Your task to perform on an android device: Open accessibility settings Image 0: 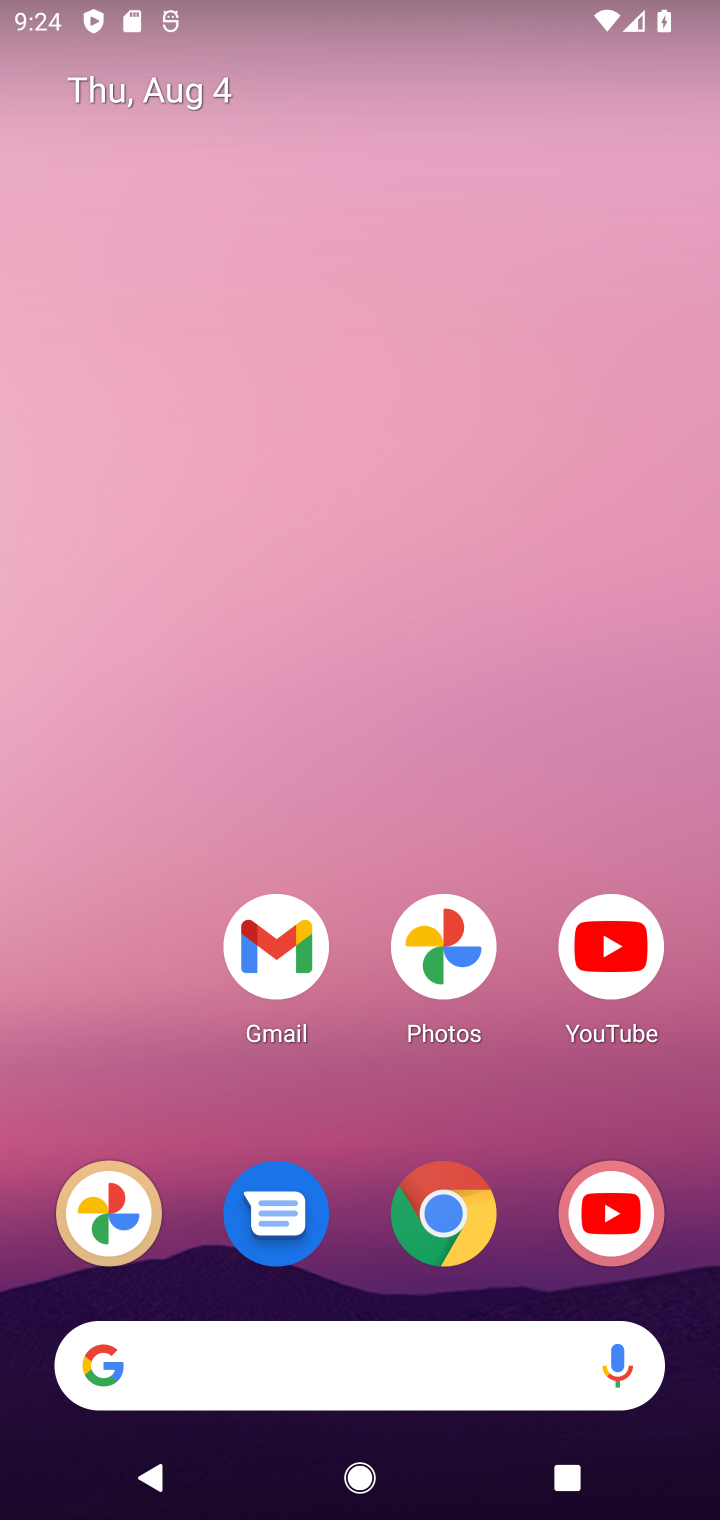
Step 0: press home button
Your task to perform on an android device: Open accessibility settings Image 1: 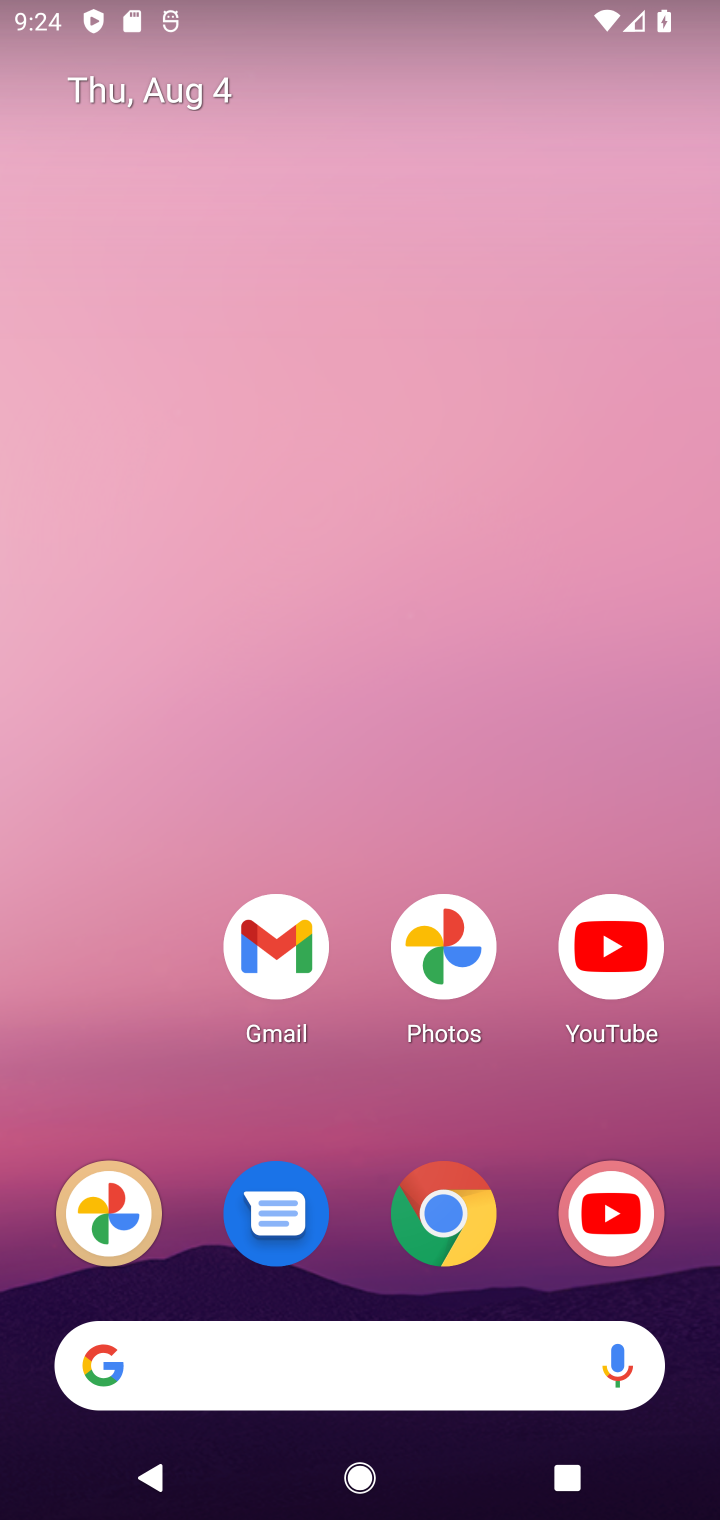
Step 1: drag from (344, 1099) to (378, 63)
Your task to perform on an android device: Open accessibility settings Image 2: 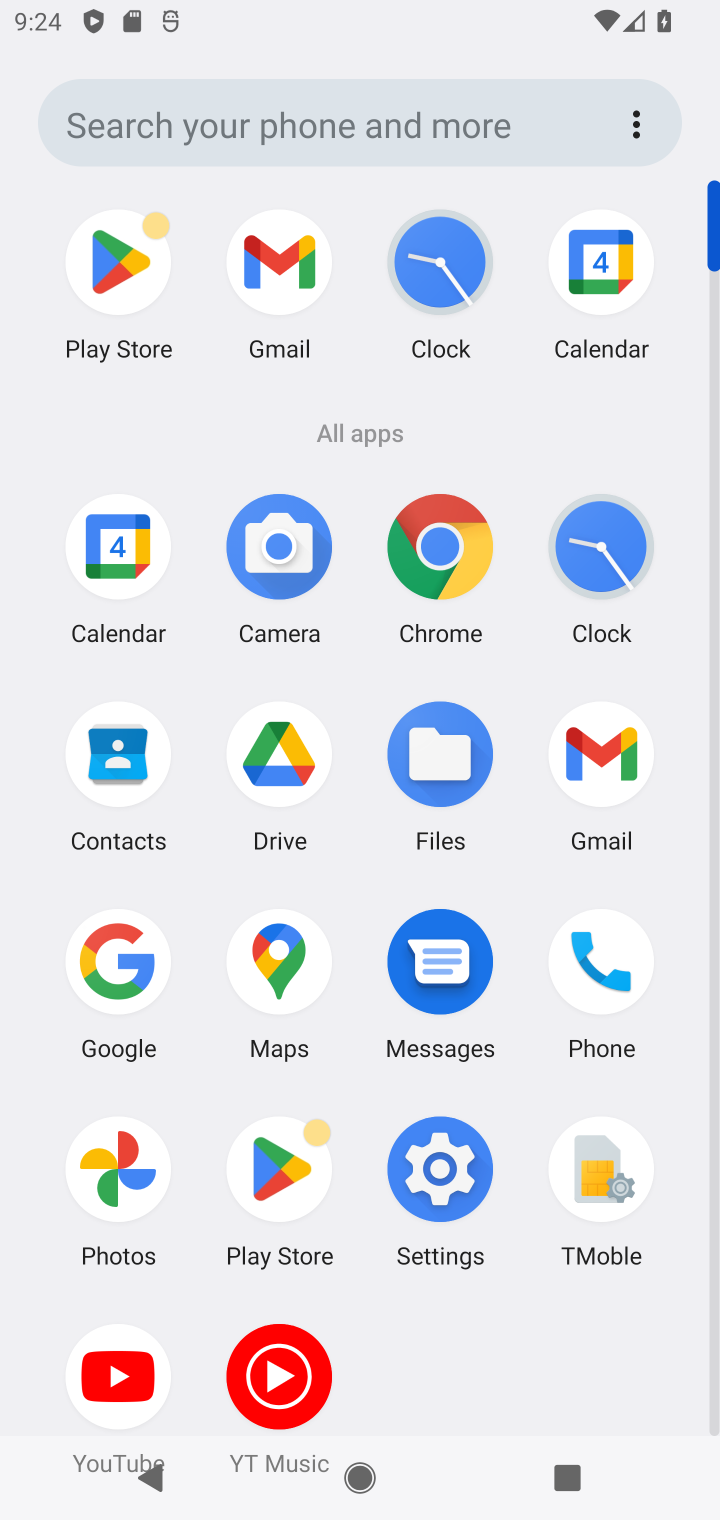
Step 2: click (436, 1161)
Your task to perform on an android device: Open accessibility settings Image 3: 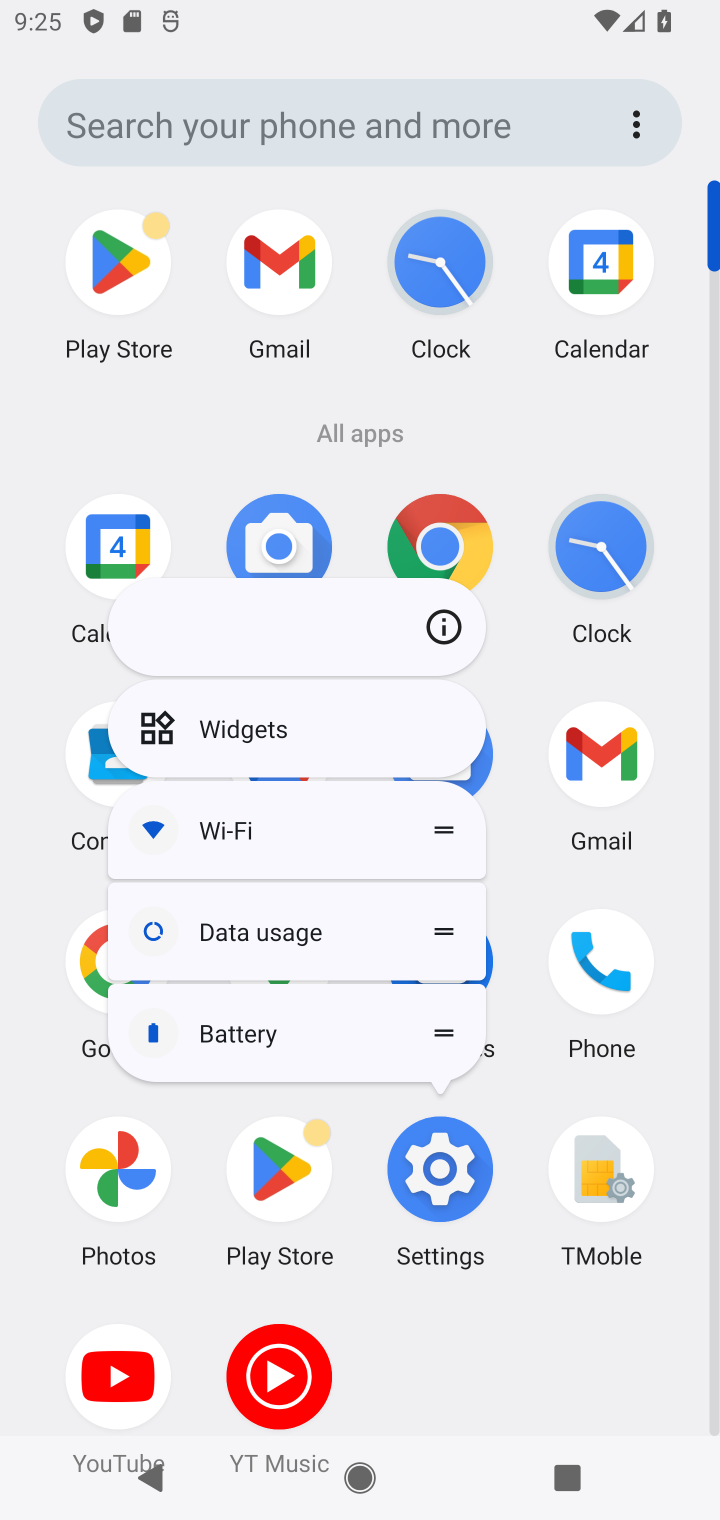
Step 3: click (448, 1166)
Your task to perform on an android device: Open accessibility settings Image 4: 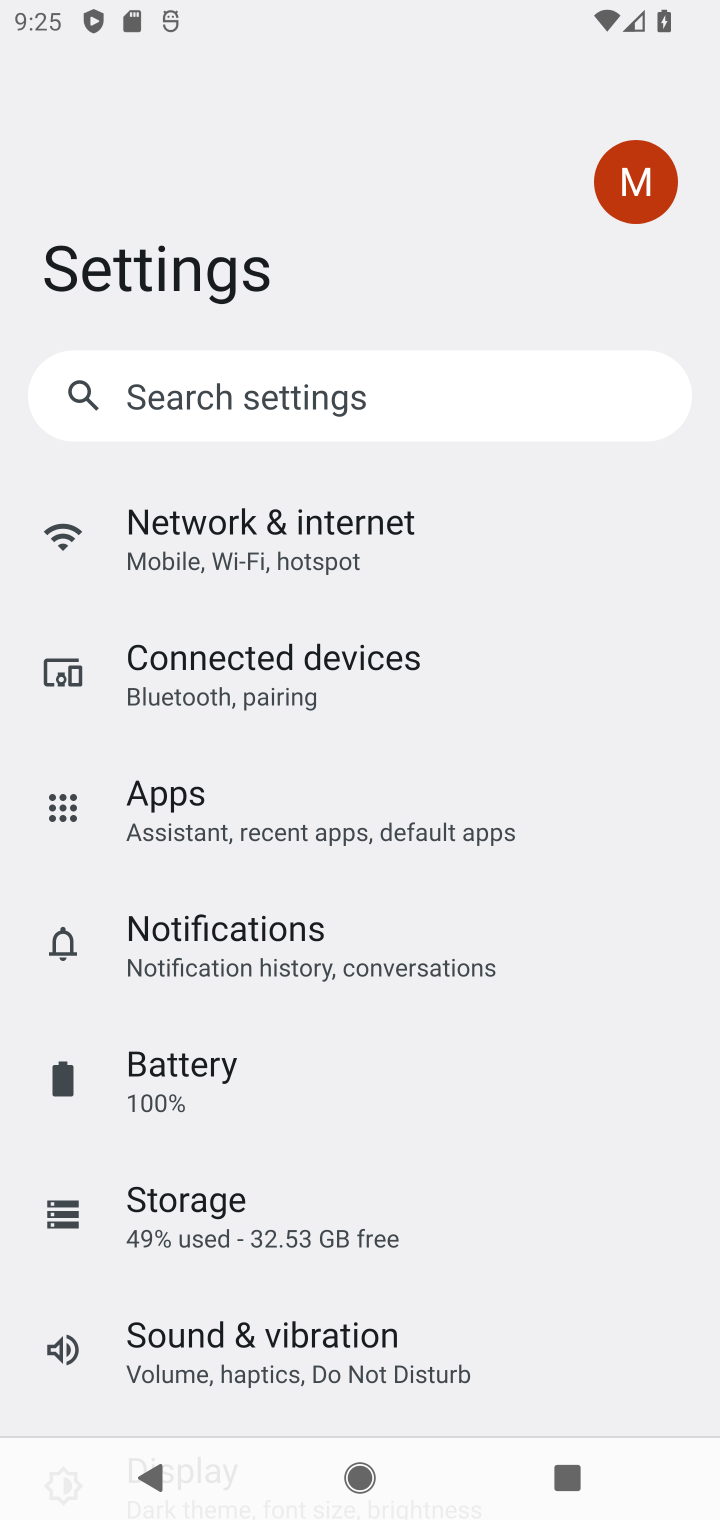
Step 4: drag from (321, 1292) to (431, 319)
Your task to perform on an android device: Open accessibility settings Image 5: 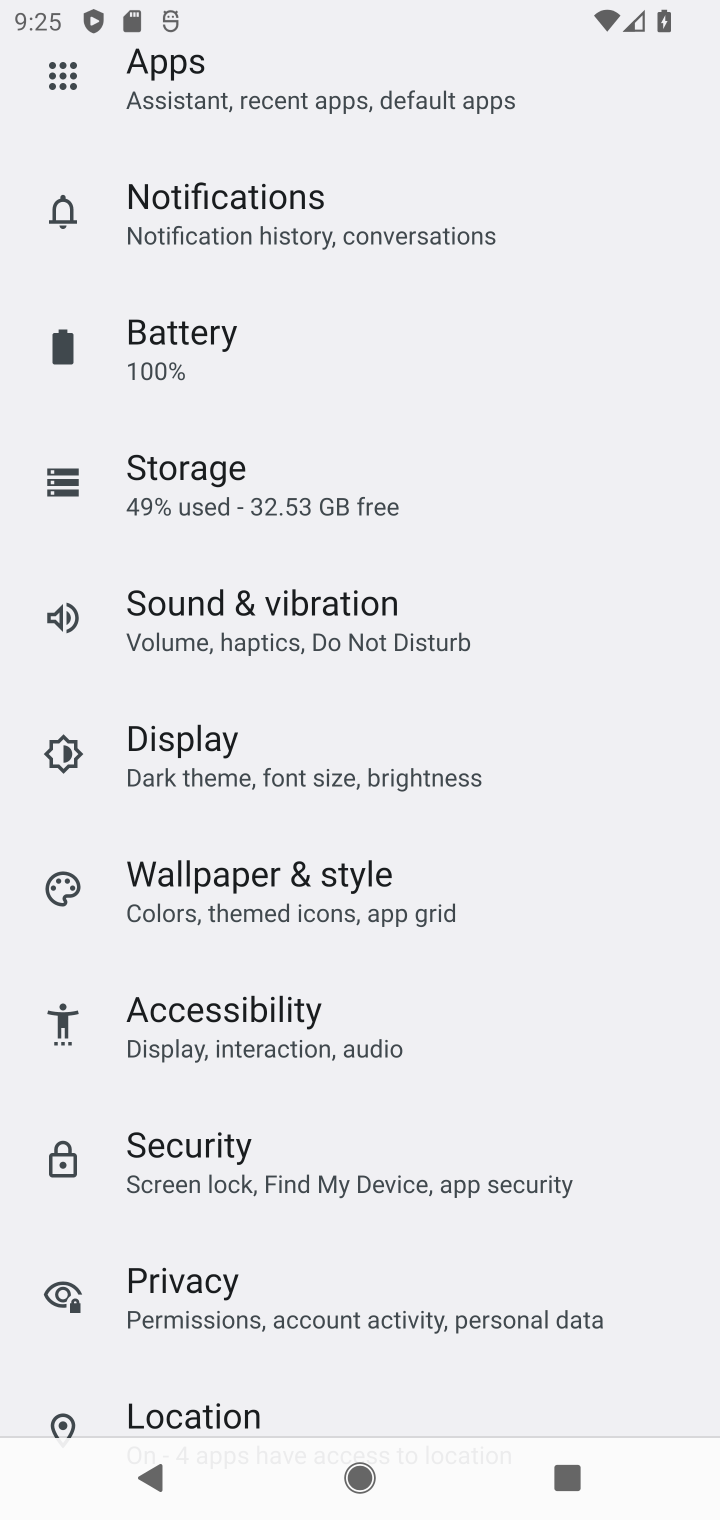
Step 5: click (335, 1013)
Your task to perform on an android device: Open accessibility settings Image 6: 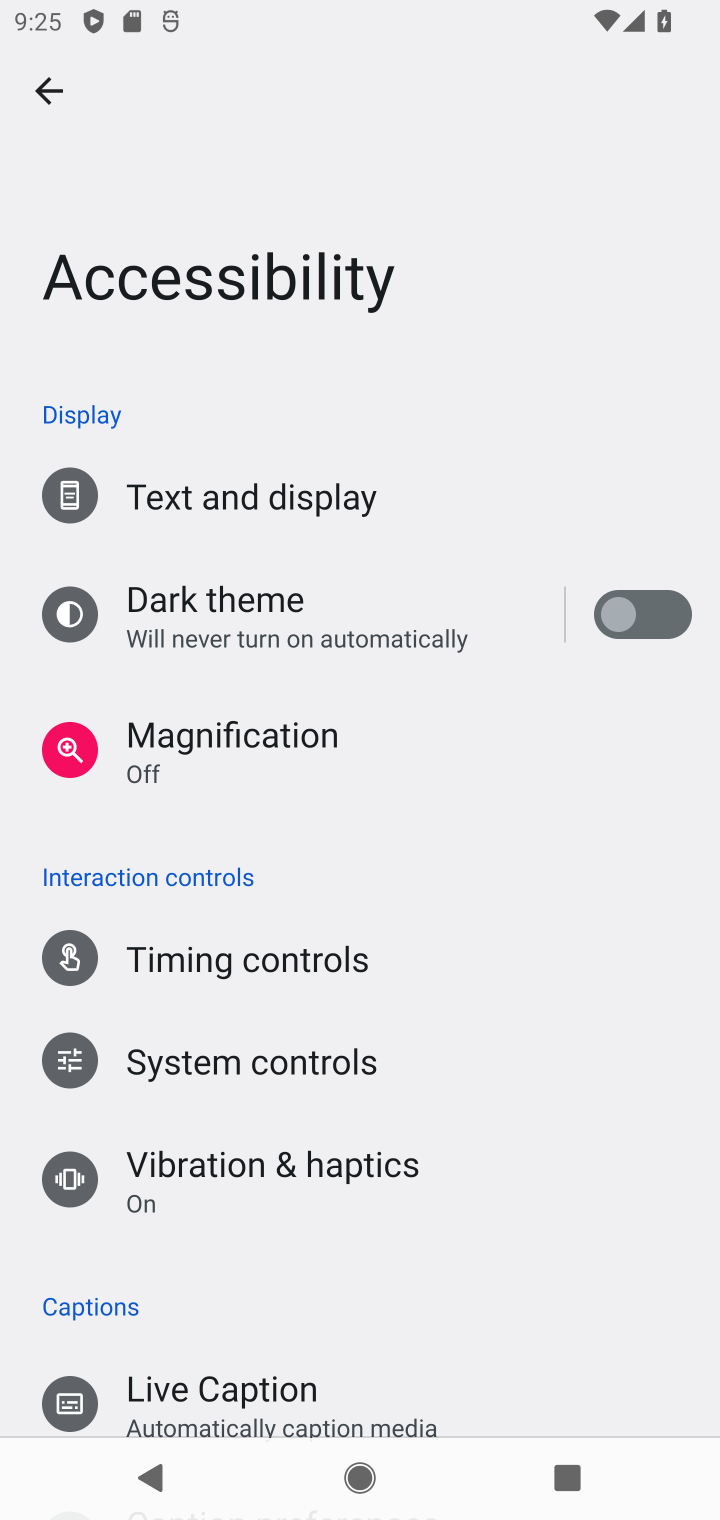
Step 6: task complete